Your task to perform on an android device: open a bookmark in the chrome app Image 0: 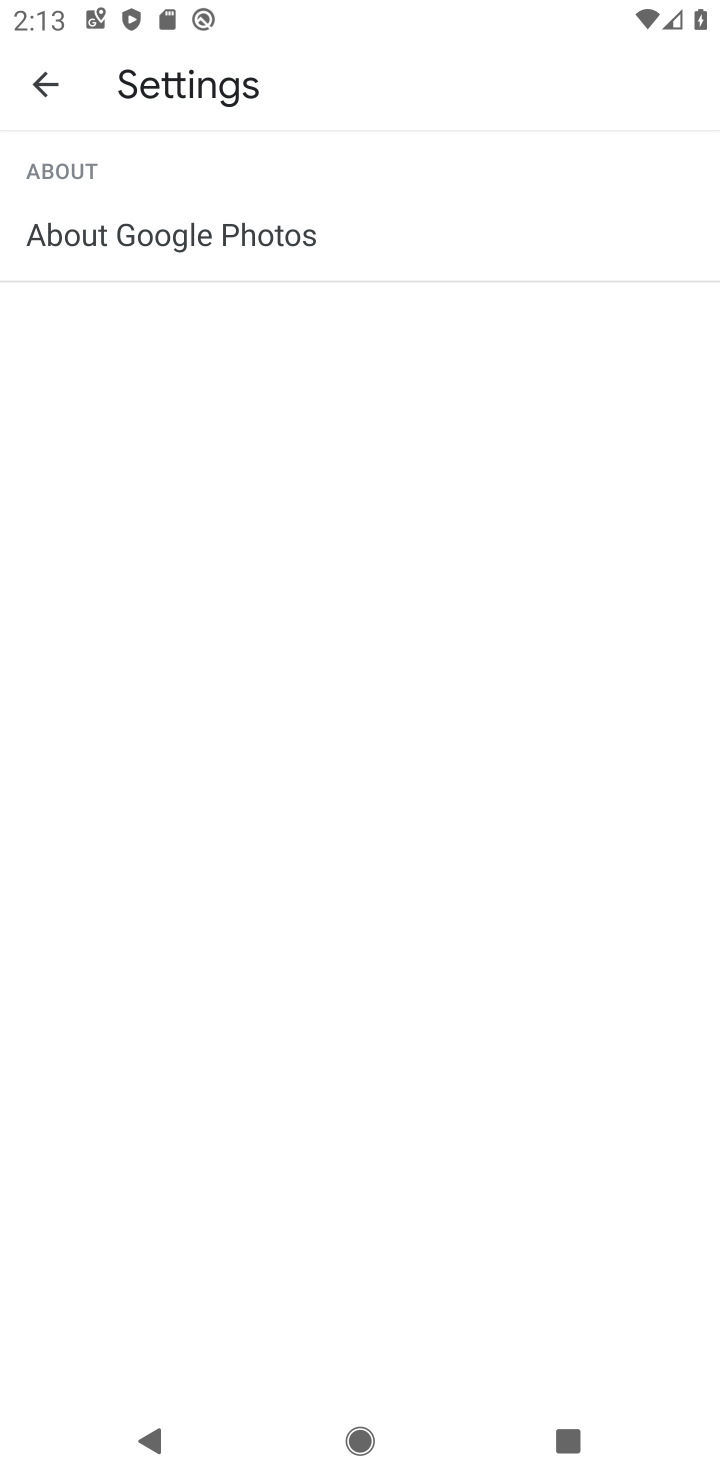
Step 0: press back button
Your task to perform on an android device: open a bookmark in the chrome app Image 1: 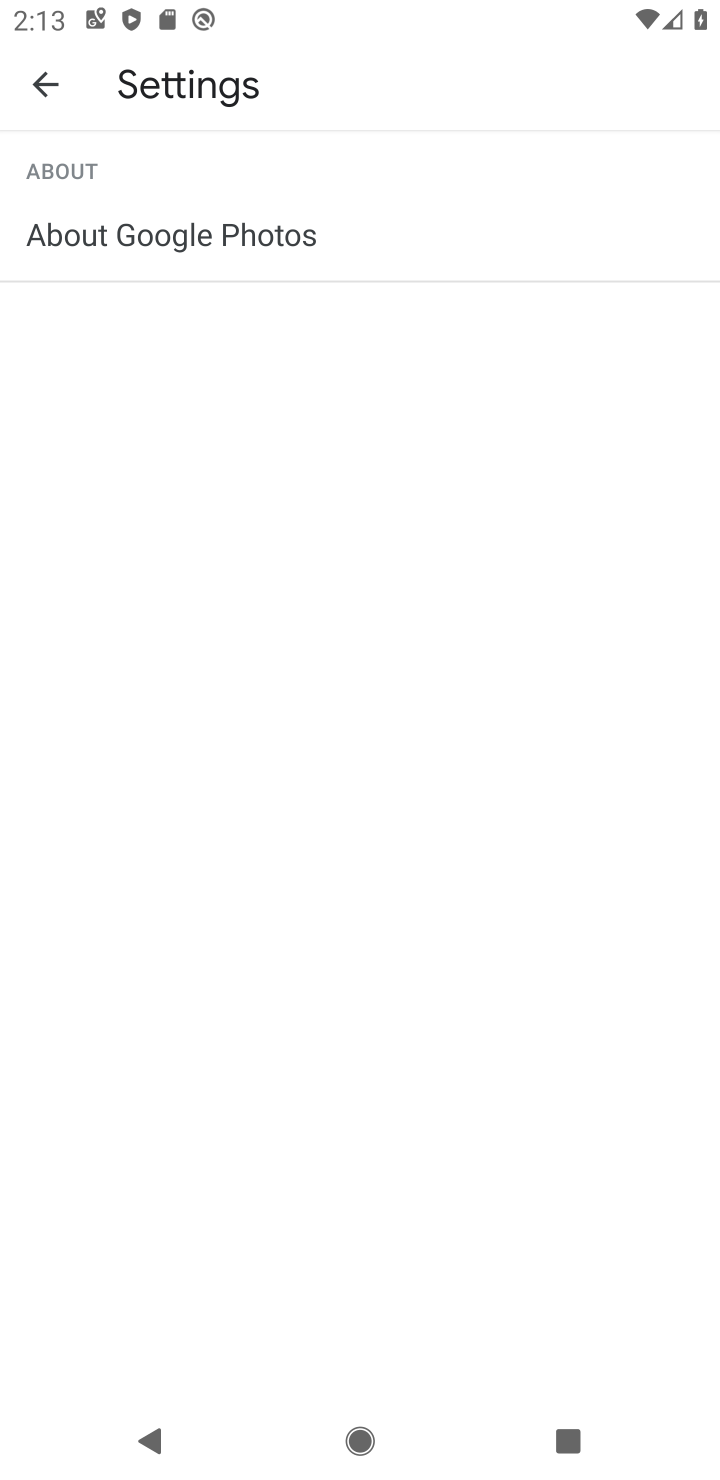
Step 1: press home button
Your task to perform on an android device: open a bookmark in the chrome app Image 2: 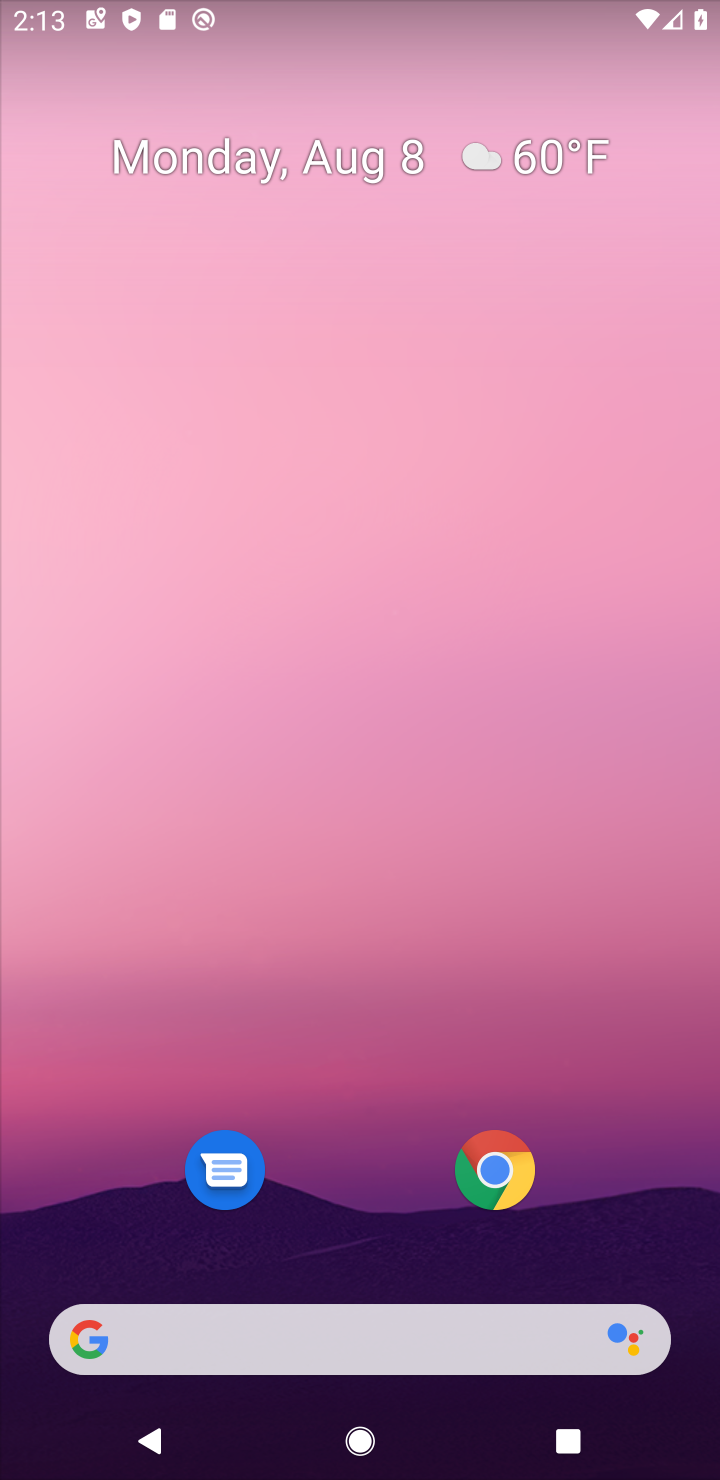
Step 2: click (486, 1153)
Your task to perform on an android device: open a bookmark in the chrome app Image 3: 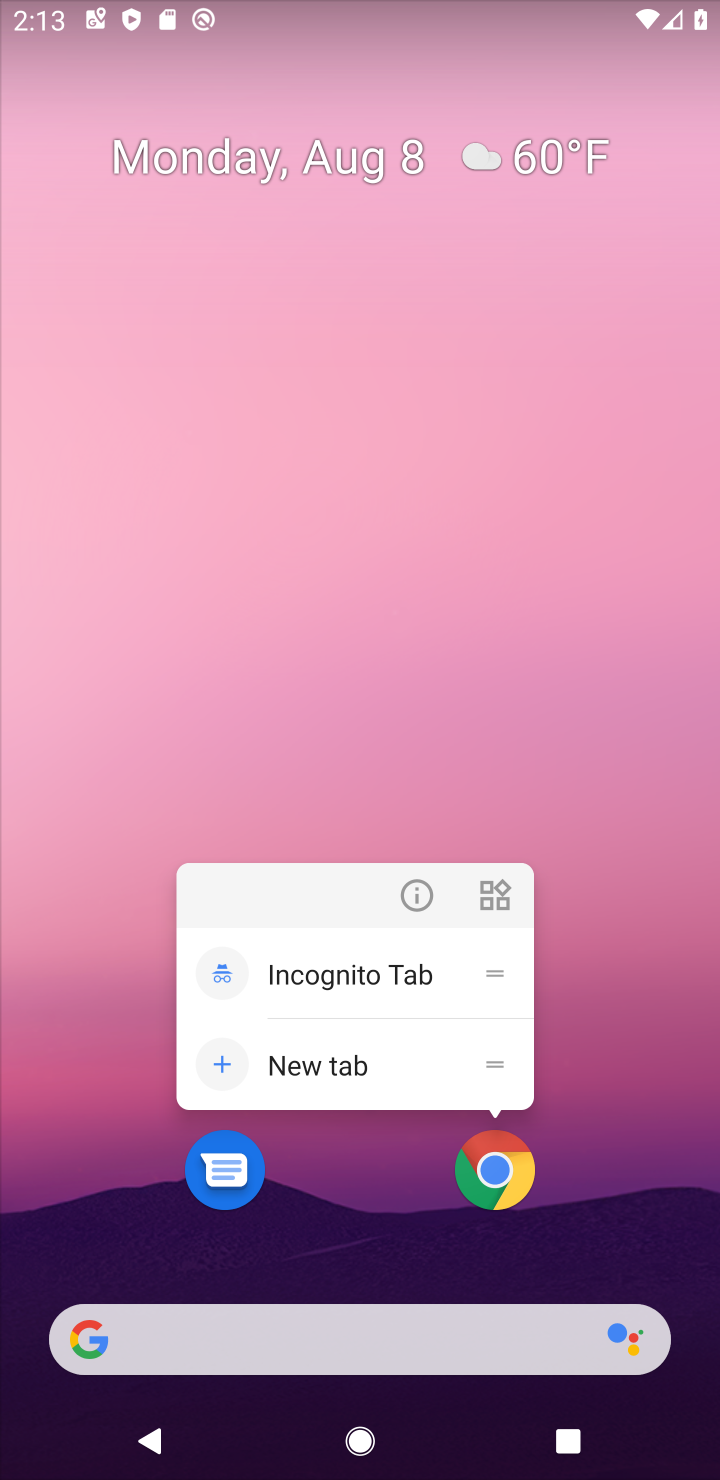
Step 3: click (486, 1153)
Your task to perform on an android device: open a bookmark in the chrome app Image 4: 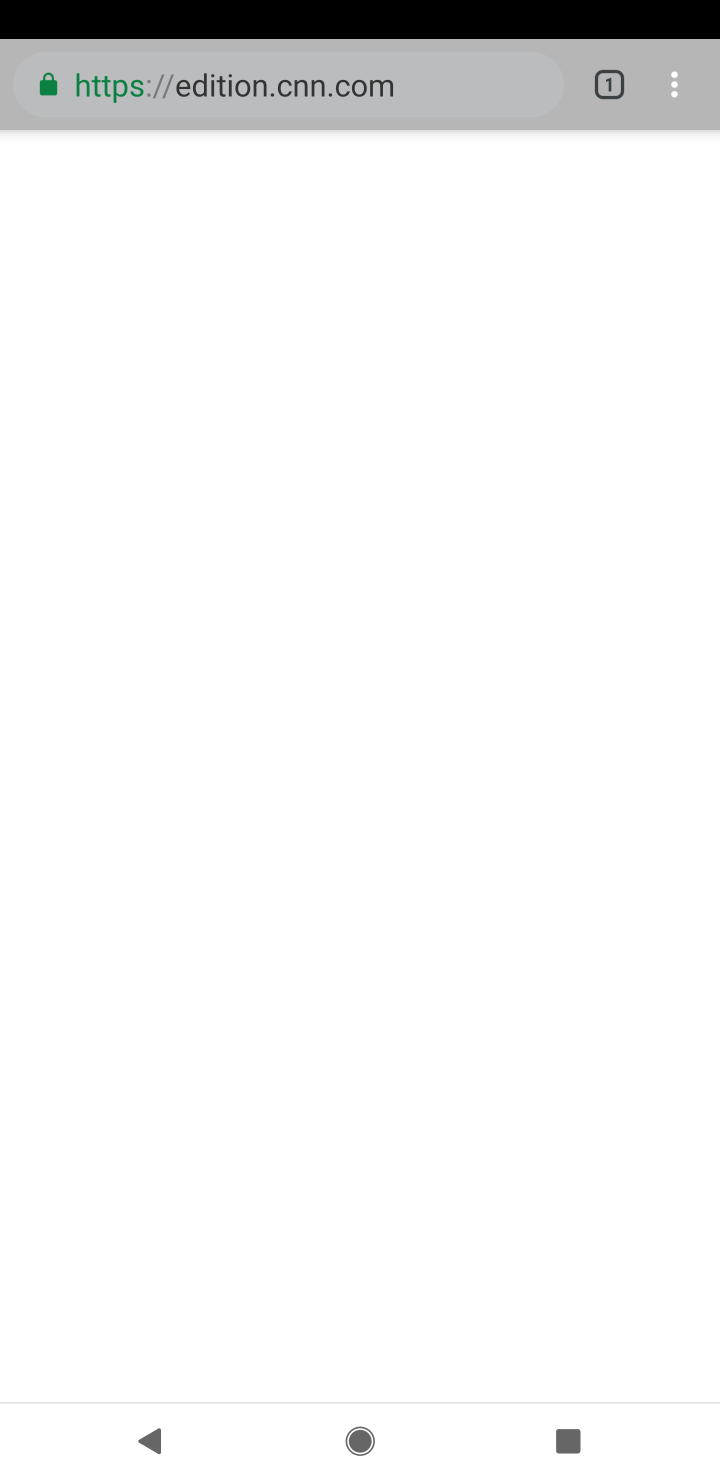
Step 4: click (666, 66)
Your task to perform on an android device: open a bookmark in the chrome app Image 5: 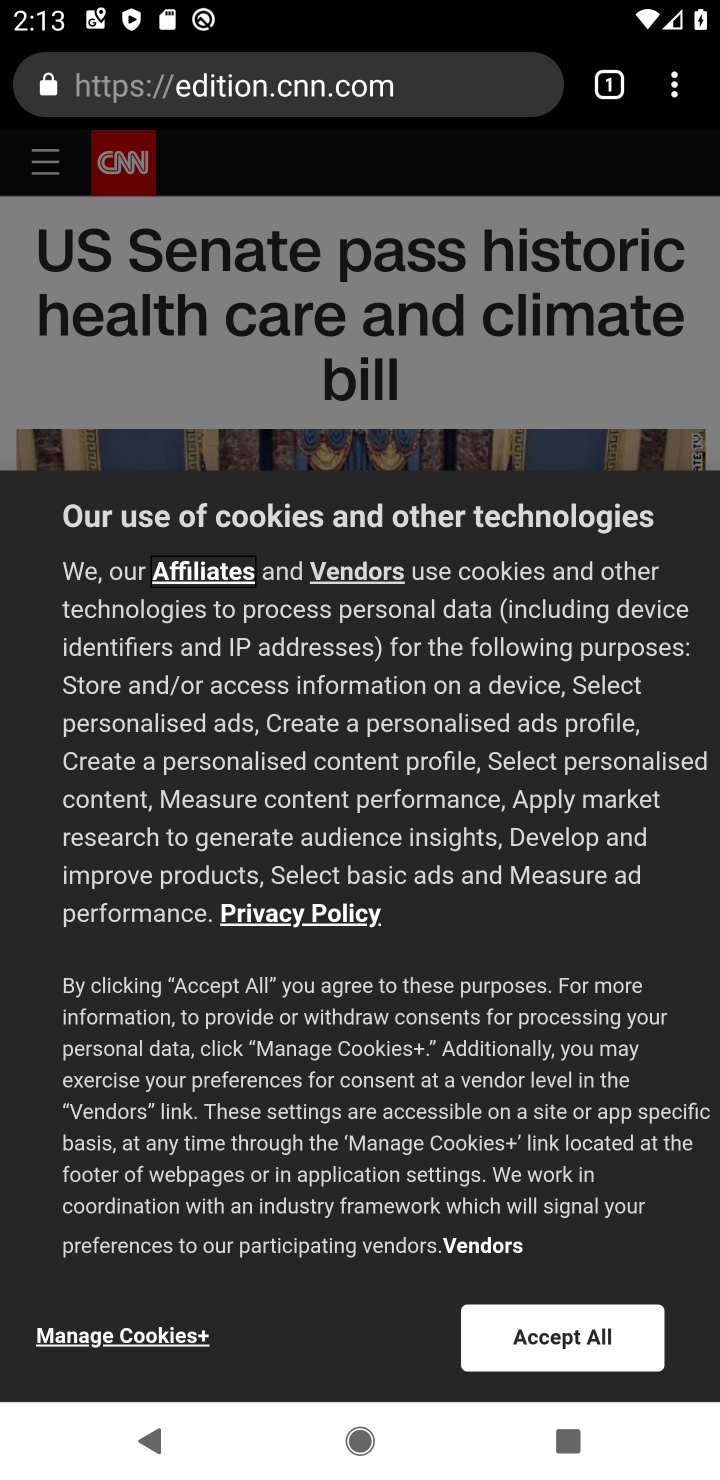
Step 5: drag from (675, 99) to (417, 332)
Your task to perform on an android device: open a bookmark in the chrome app Image 6: 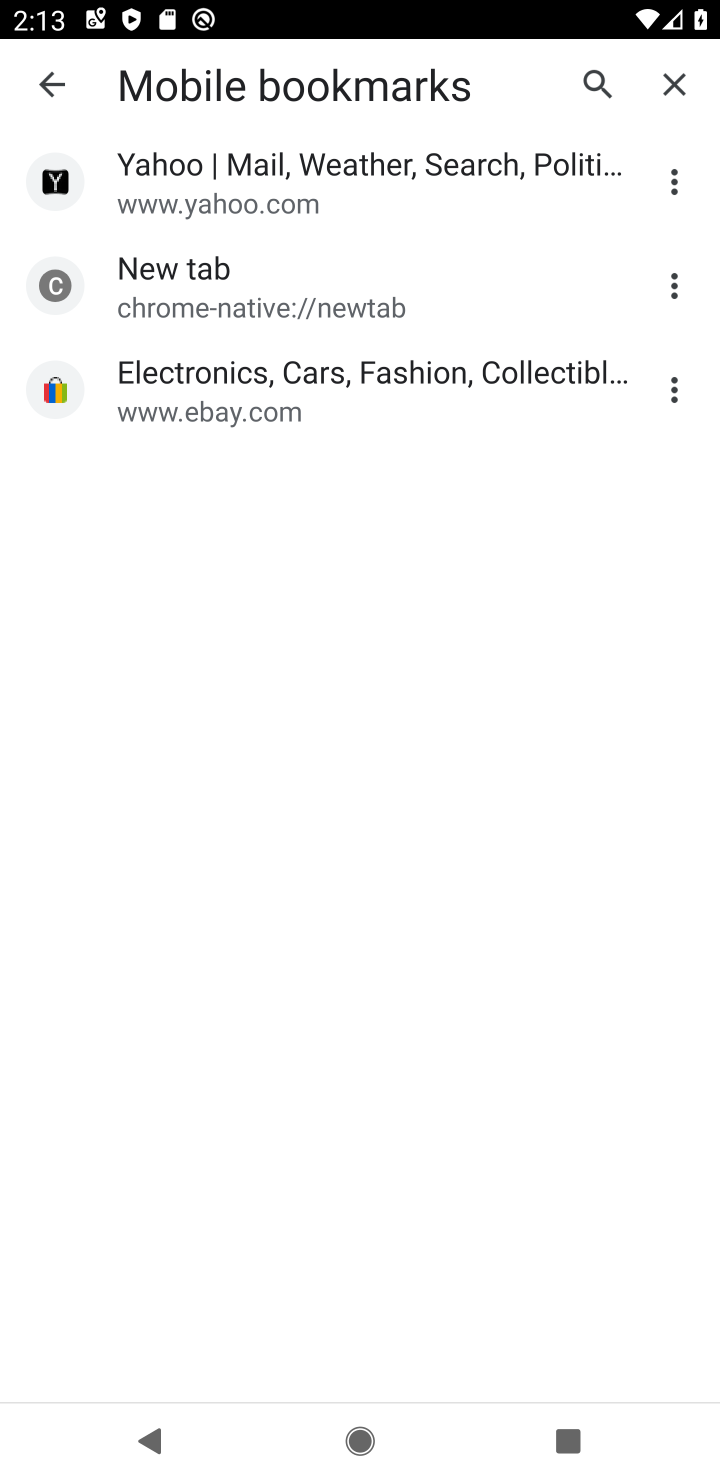
Step 6: click (677, 393)
Your task to perform on an android device: open a bookmark in the chrome app Image 7: 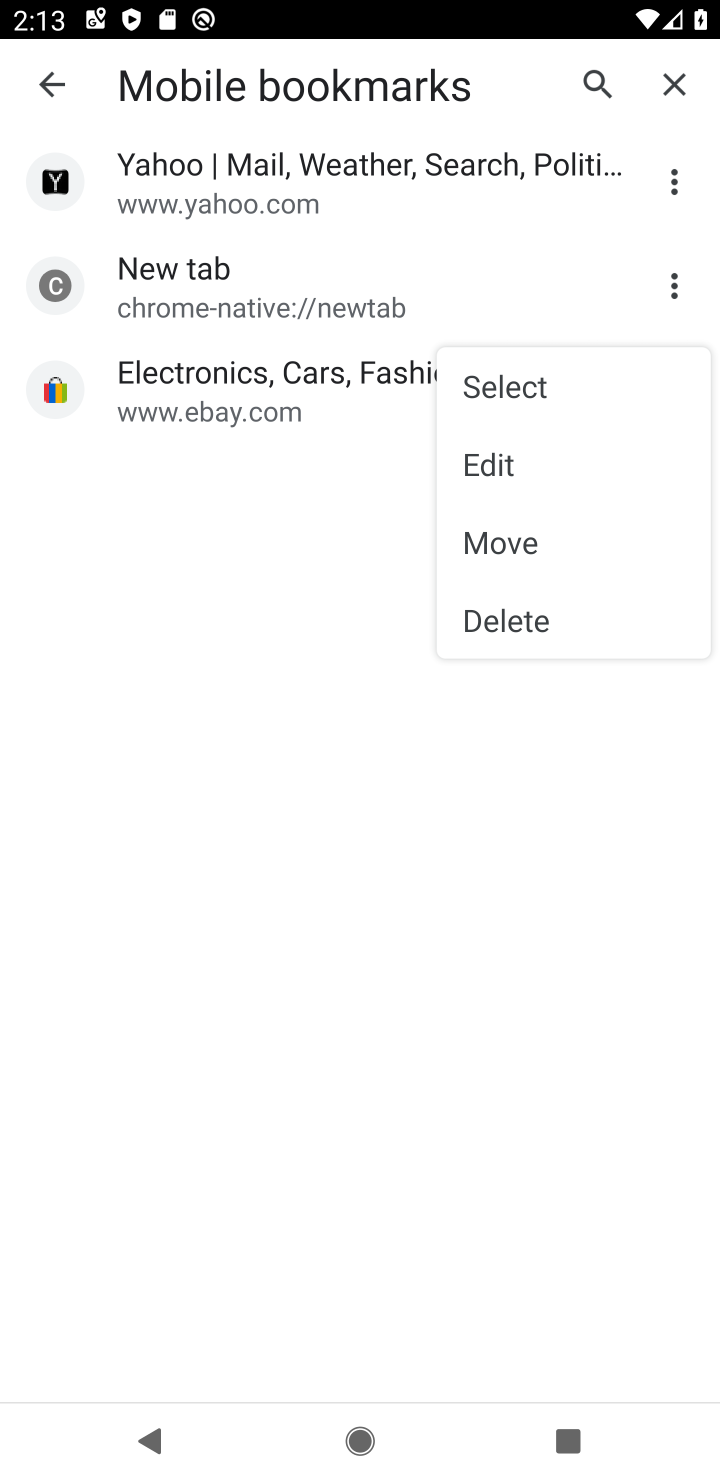
Step 7: click (179, 416)
Your task to perform on an android device: open a bookmark in the chrome app Image 8: 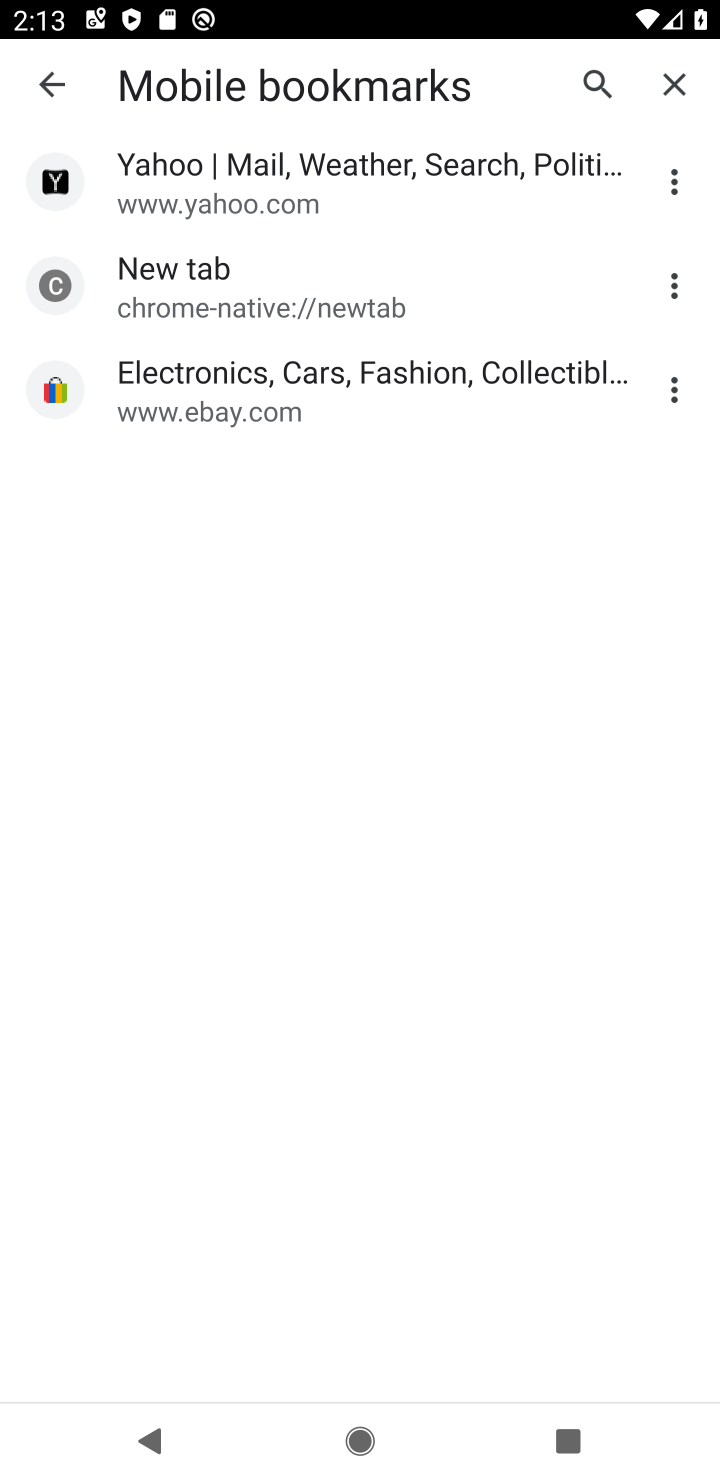
Step 8: click (200, 393)
Your task to perform on an android device: open a bookmark in the chrome app Image 9: 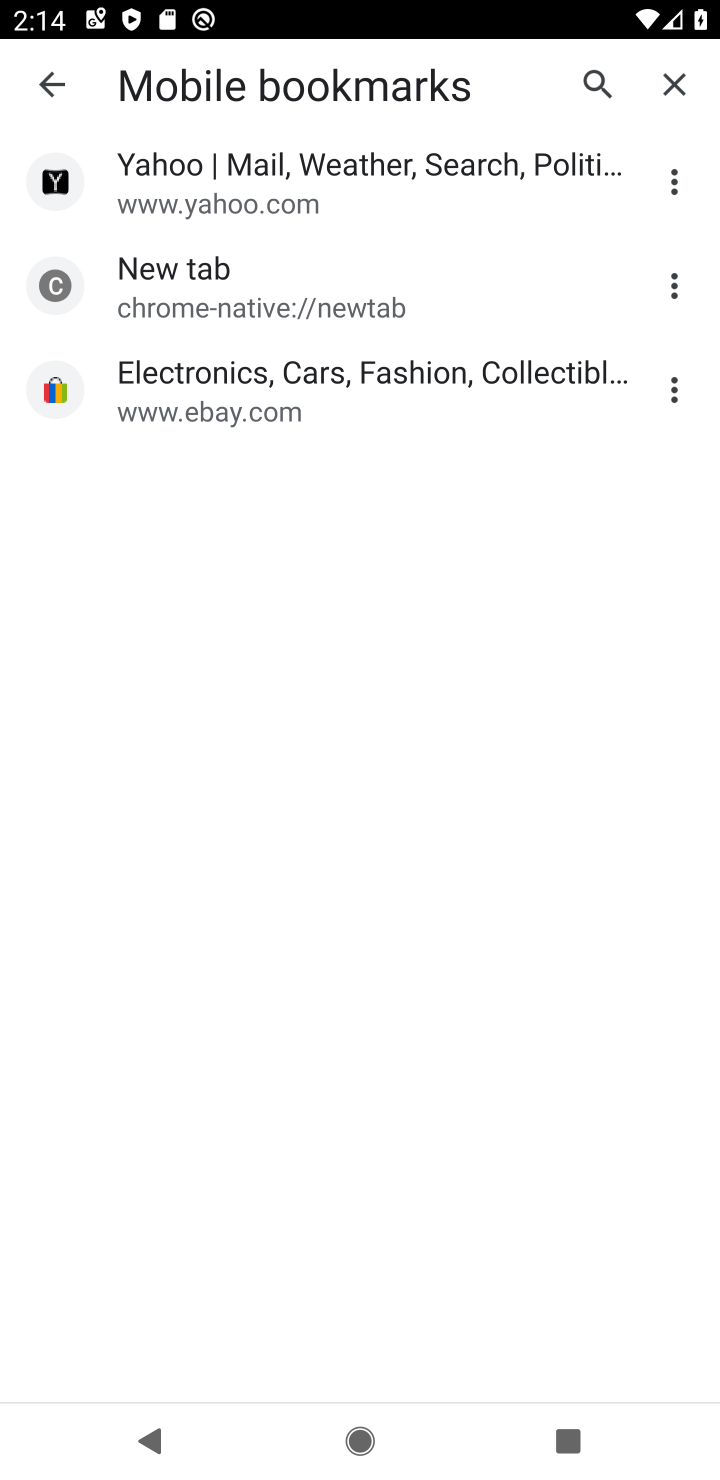
Step 9: click (266, 424)
Your task to perform on an android device: open a bookmark in the chrome app Image 10: 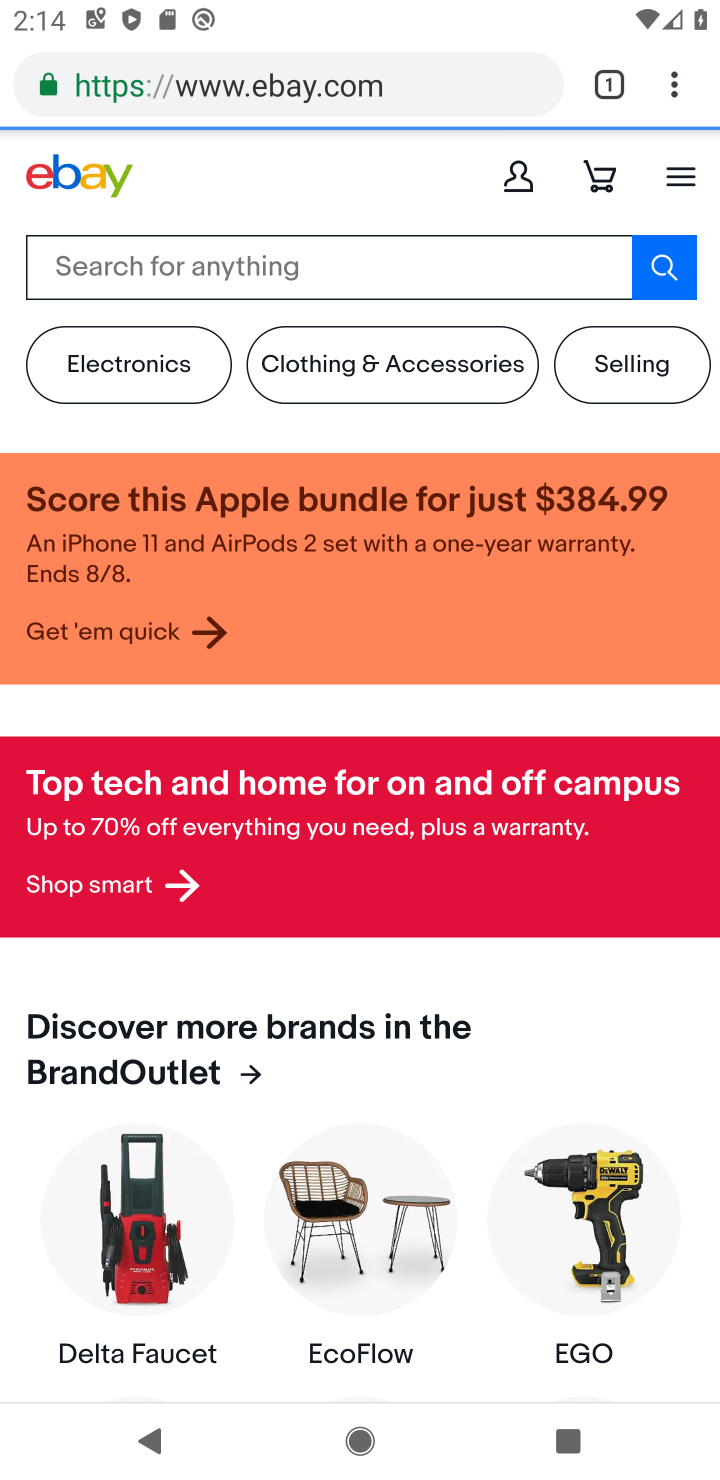
Step 10: task complete